Your task to perform on an android device: add a label to a message in the gmail app Image 0: 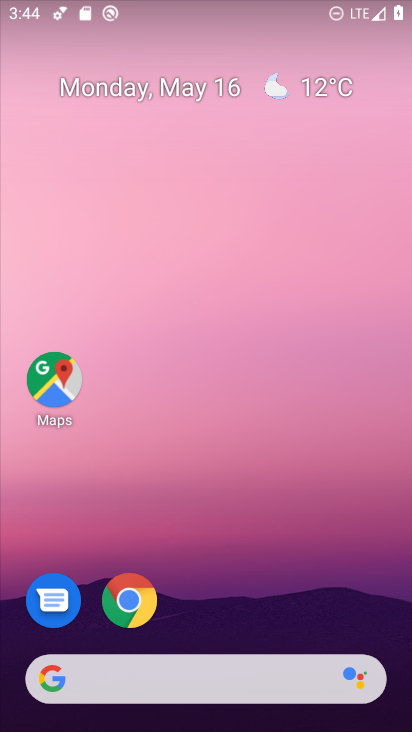
Step 0: drag from (273, 612) to (290, 153)
Your task to perform on an android device: add a label to a message in the gmail app Image 1: 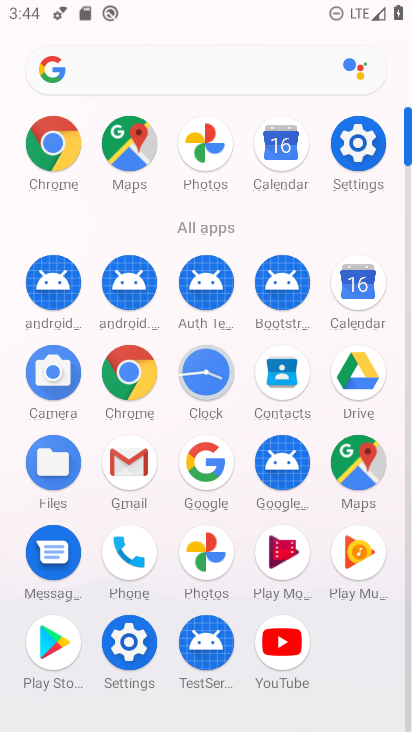
Step 1: click (126, 476)
Your task to perform on an android device: add a label to a message in the gmail app Image 2: 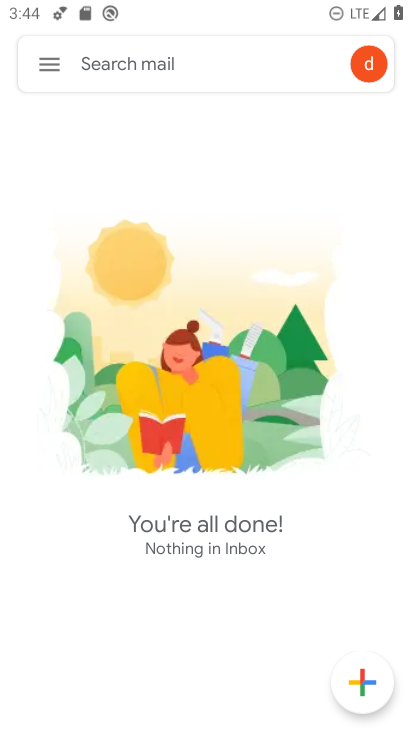
Step 2: click (54, 58)
Your task to perform on an android device: add a label to a message in the gmail app Image 3: 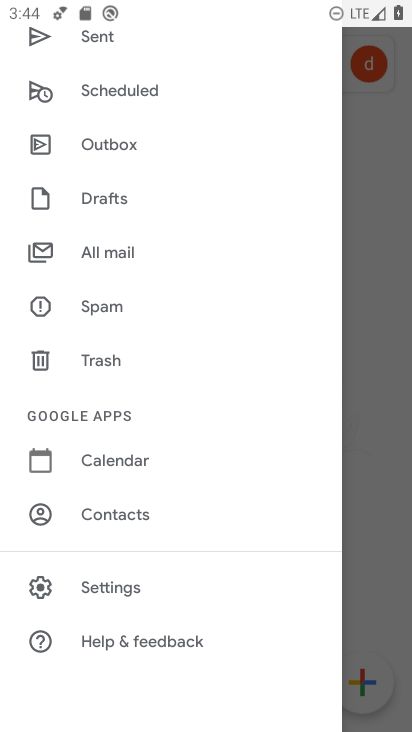
Step 3: drag from (140, 316) to (146, 652)
Your task to perform on an android device: add a label to a message in the gmail app Image 4: 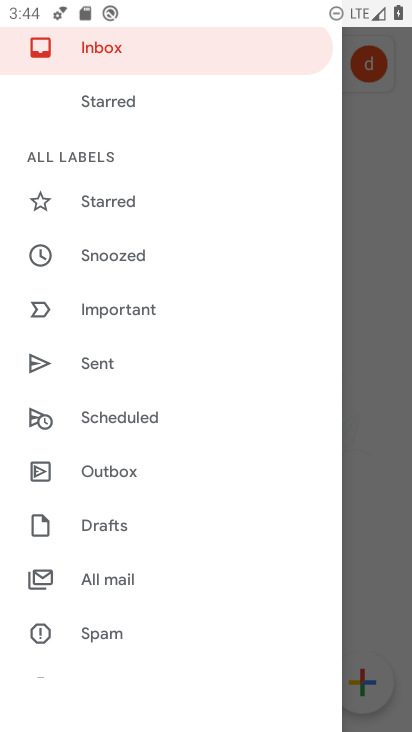
Step 4: drag from (133, 188) to (164, 594)
Your task to perform on an android device: add a label to a message in the gmail app Image 5: 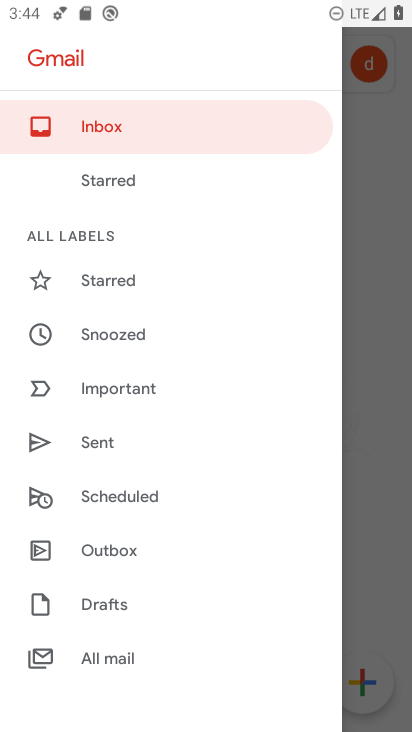
Step 5: click (106, 650)
Your task to perform on an android device: add a label to a message in the gmail app Image 6: 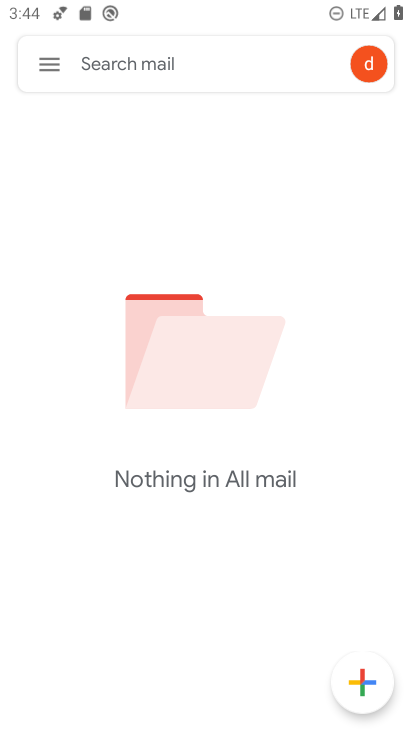
Step 6: task complete